Your task to perform on an android device: uninstall "LiveIn - Share Your Moment" Image 0: 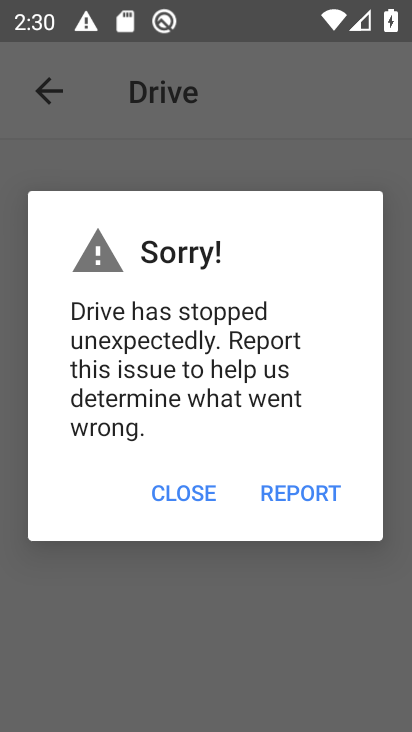
Step 0: click (189, 498)
Your task to perform on an android device: uninstall "LiveIn - Share Your Moment" Image 1: 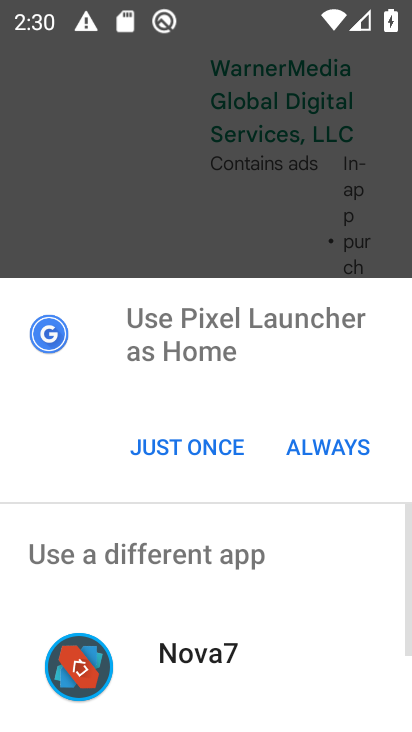
Step 1: click (150, 438)
Your task to perform on an android device: uninstall "LiveIn - Share Your Moment" Image 2: 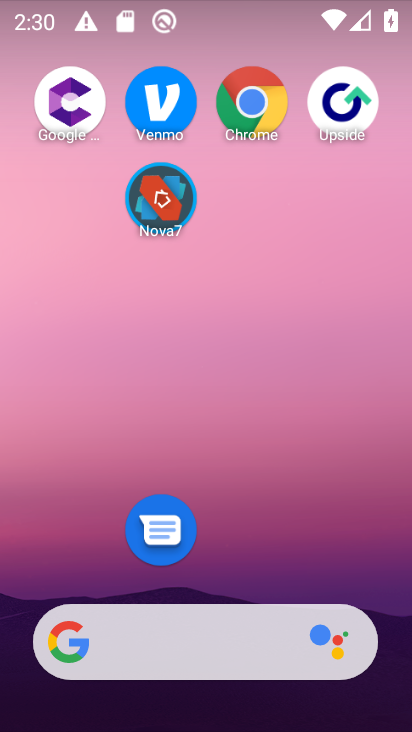
Step 2: drag from (333, 551) to (358, 65)
Your task to perform on an android device: uninstall "LiveIn - Share Your Moment" Image 3: 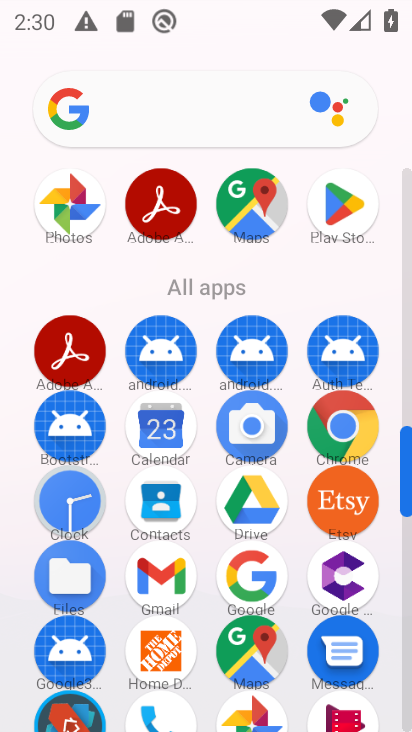
Step 3: click (329, 215)
Your task to perform on an android device: uninstall "LiveIn - Share Your Moment" Image 4: 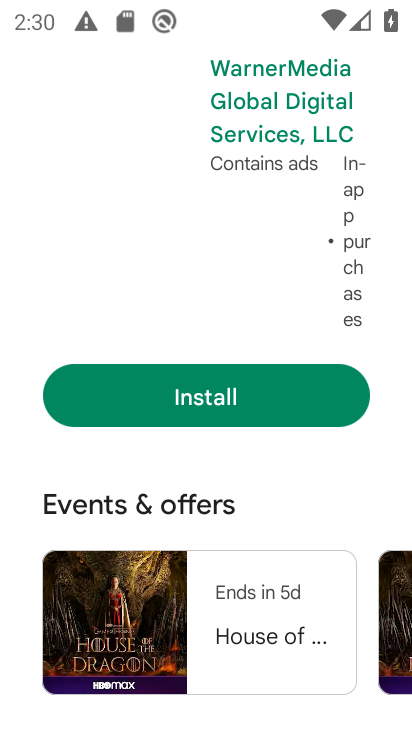
Step 4: press back button
Your task to perform on an android device: uninstall "LiveIn - Share Your Moment" Image 5: 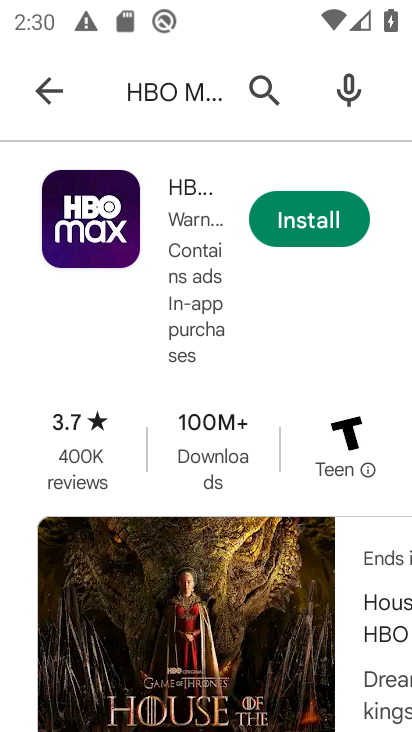
Step 5: press back button
Your task to perform on an android device: uninstall "LiveIn - Share Your Moment" Image 6: 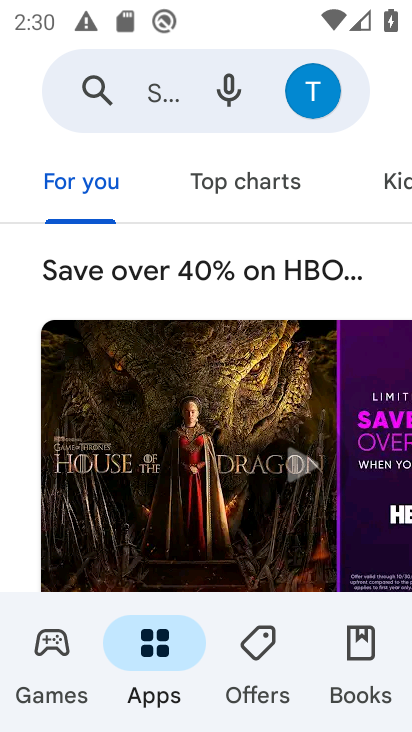
Step 6: click (163, 109)
Your task to perform on an android device: uninstall "LiveIn - Share Your Moment" Image 7: 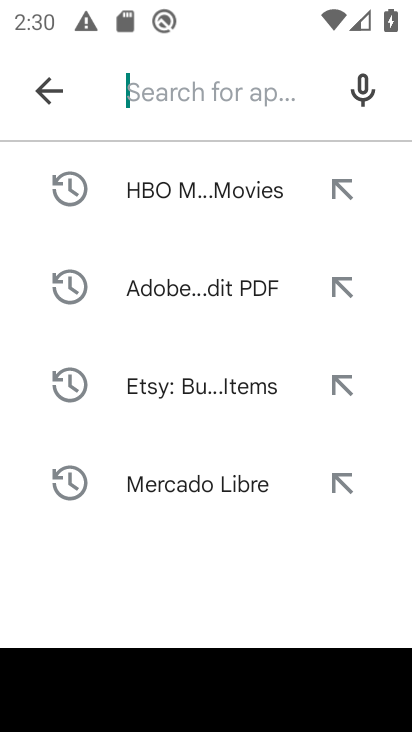
Step 7: drag from (214, 729) to (331, 508)
Your task to perform on an android device: uninstall "LiveIn - Share Your Moment" Image 8: 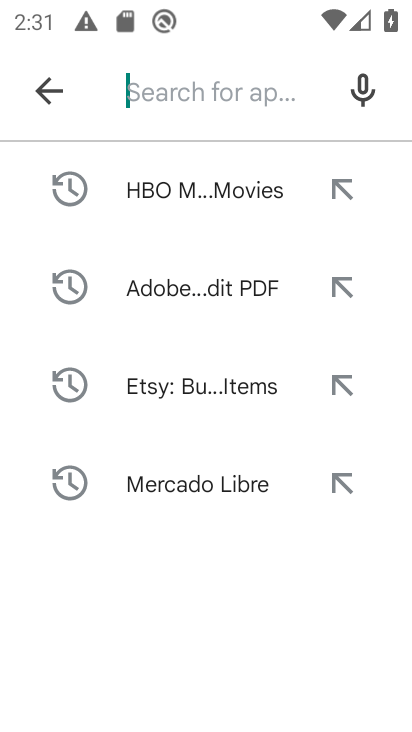
Step 8: type "LiveIn - Share Your Moment"
Your task to perform on an android device: uninstall "LiveIn - Share Your Moment" Image 9: 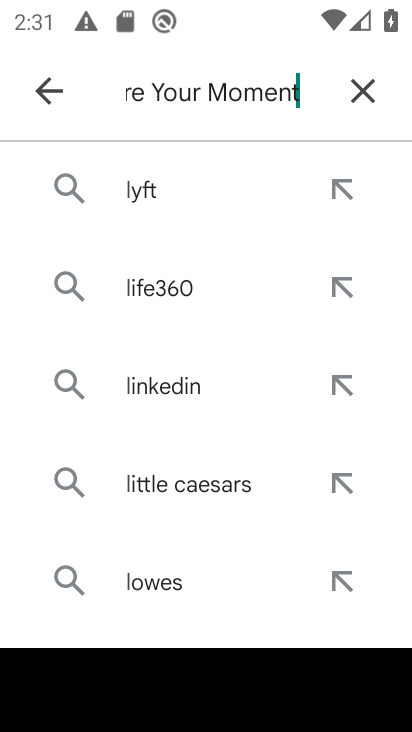
Step 9: press enter
Your task to perform on an android device: uninstall "LiveIn - Share Your Moment" Image 10: 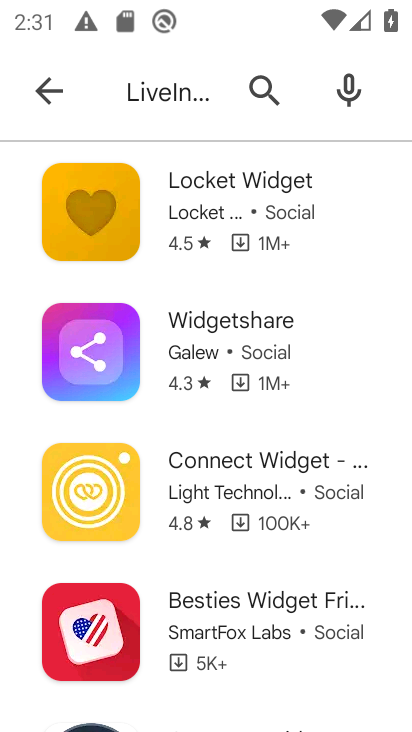
Step 10: task complete